Your task to perform on an android device: Turn on the flashlight Image 0: 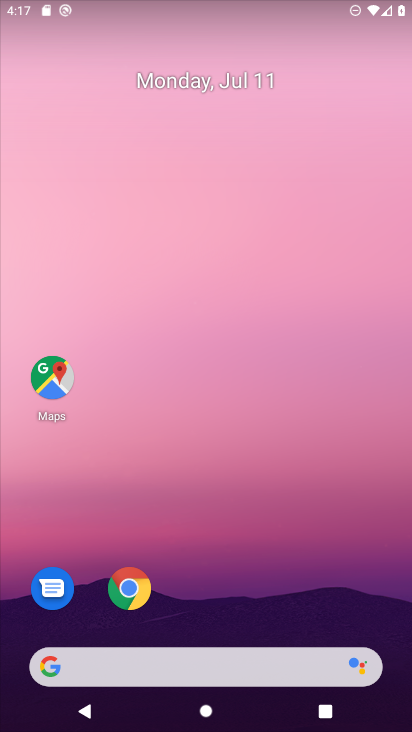
Step 0: drag from (249, 116) to (411, 512)
Your task to perform on an android device: Turn on the flashlight Image 1: 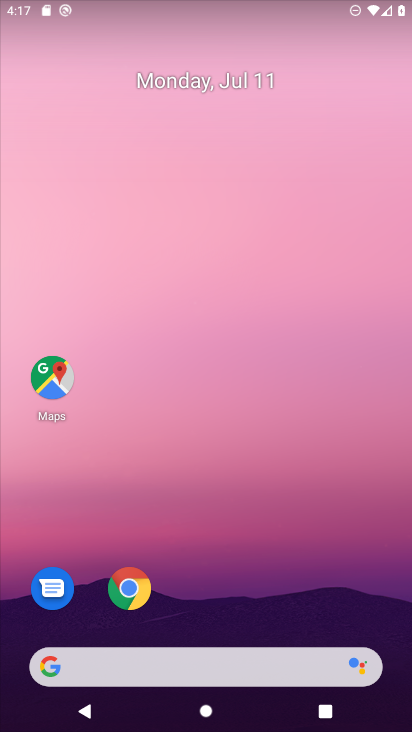
Step 1: task complete